Your task to perform on an android device: Turn on the flashlight Image 0: 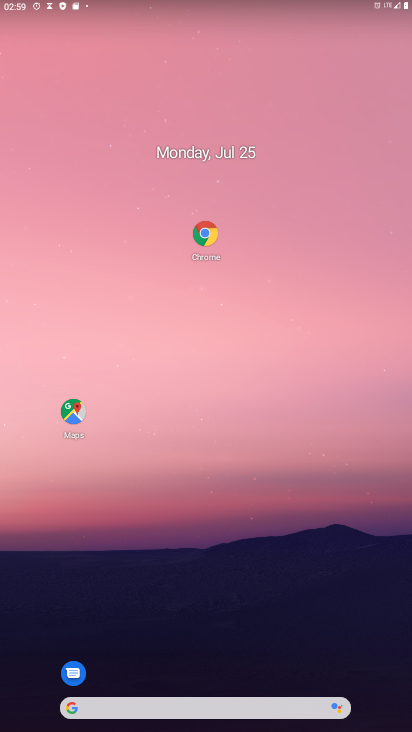
Step 0: drag from (244, 2) to (239, 647)
Your task to perform on an android device: Turn on the flashlight Image 1: 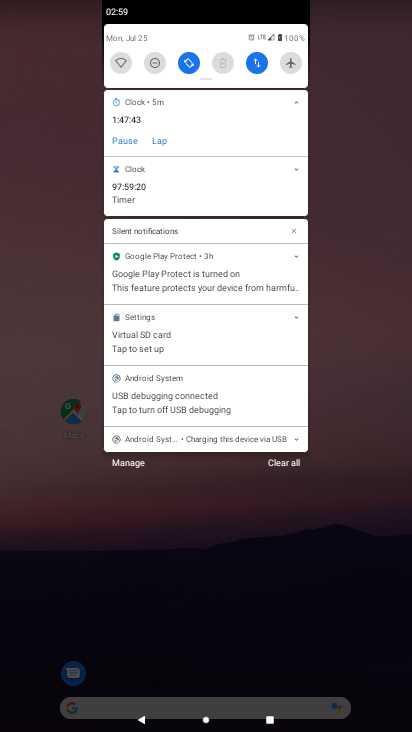
Step 1: task complete